Your task to perform on an android device: turn on improve location accuracy Image 0: 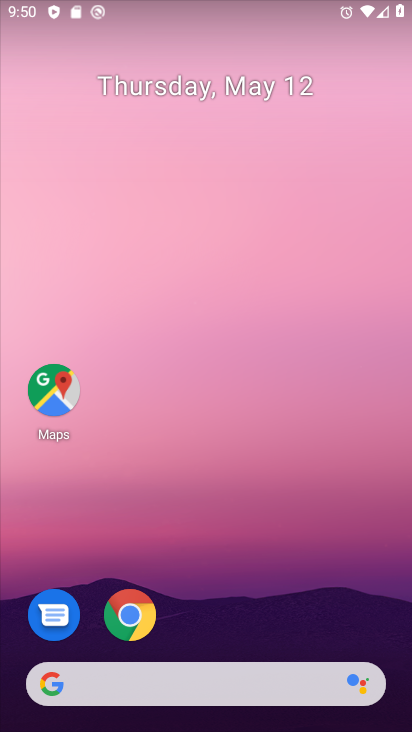
Step 0: drag from (280, 596) to (283, 86)
Your task to perform on an android device: turn on improve location accuracy Image 1: 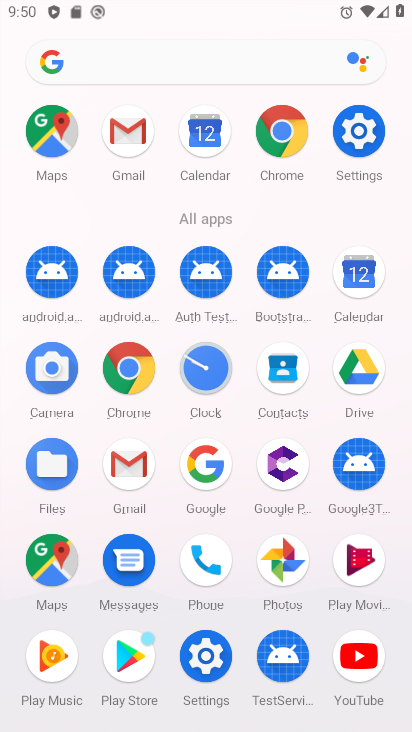
Step 1: click (368, 131)
Your task to perform on an android device: turn on improve location accuracy Image 2: 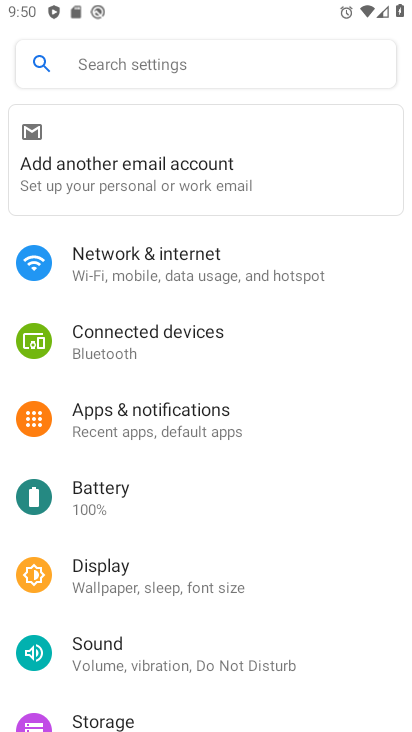
Step 2: drag from (206, 603) to (260, 158)
Your task to perform on an android device: turn on improve location accuracy Image 3: 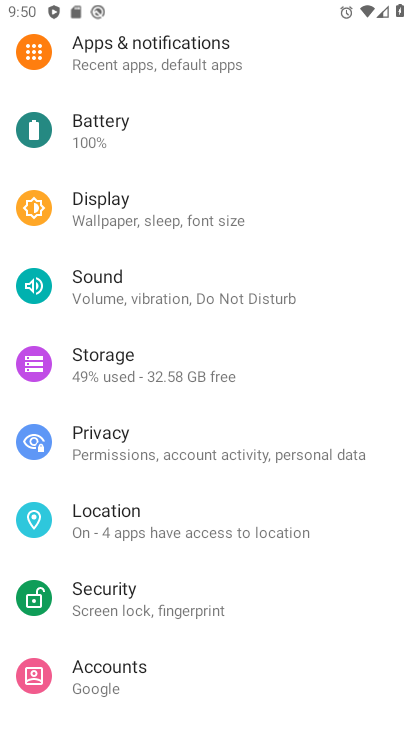
Step 3: click (161, 516)
Your task to perform on an android device: turn on improve location accuracy Image 4: 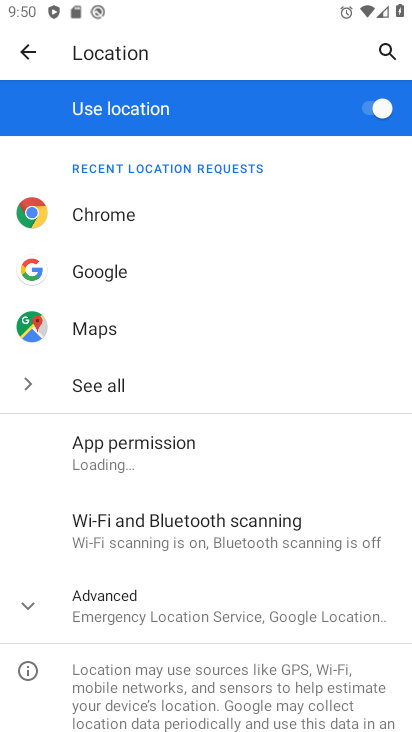
Step 4: drag from (210, 664) to (295, 328)
Your task to perform on an android device: turn on improve location accuracy Image 5: 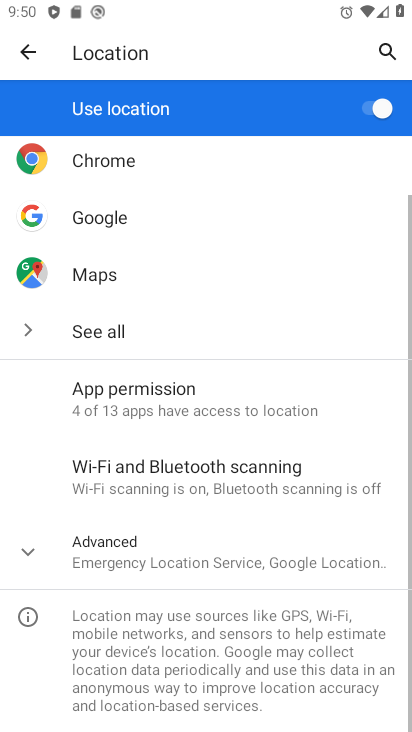
Step 5: click (172, 553)
Your task to perform on an android device: turn on improve location accuracy Image 6: 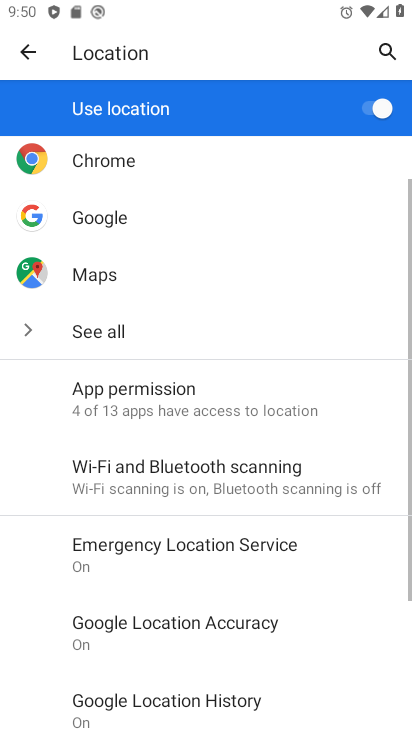
Step 6: drag from (222, 698) to (330, 356)
Your task to perform on an android device: turn on improve location accuracy Image 7: 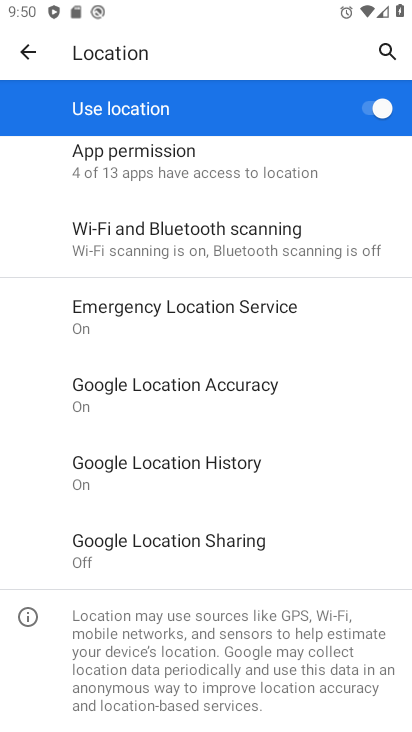
Step 7: click (261, 395)
Your task to perform on an android device: turn on improve location accuracy Image 8: 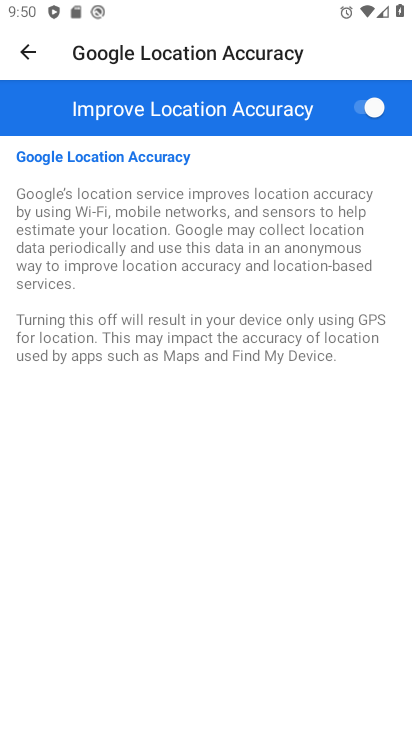
Step 8: task complete